Your task to perform on an android device: open app "Booking.com: Hotels and more" Image 0: 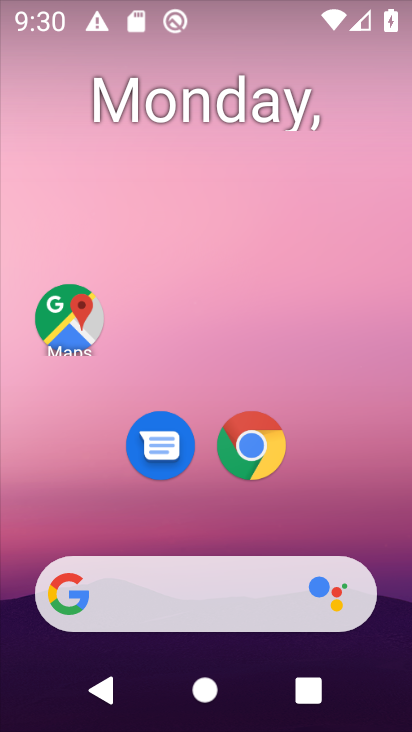
Step 0: drag from (398, 605) to (272, 67)
Your task to perform on an android device: open app "Booking.com: Hotels and more" Image 1: 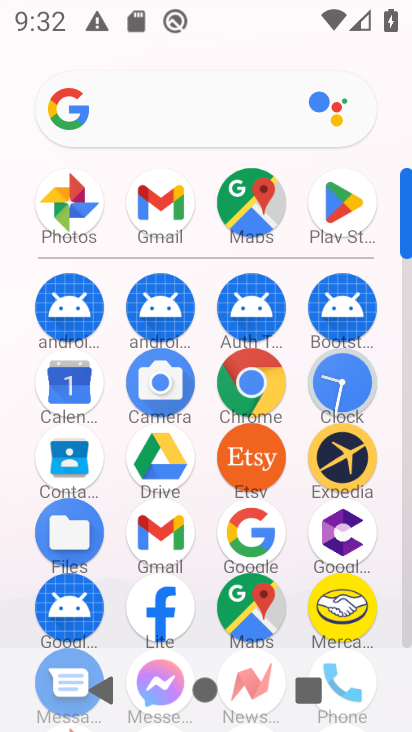
Step 1: click (314, 215)
Your task to perform on an android device: open app "Booking.com: Hotels and more" Image 2: 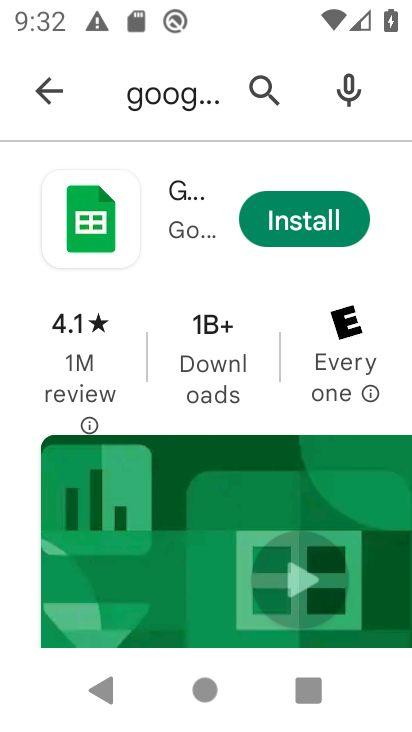
Step 2: press back button
Your task to perform on an android device: open app "Booking.com: Hotels and more" Image 3: 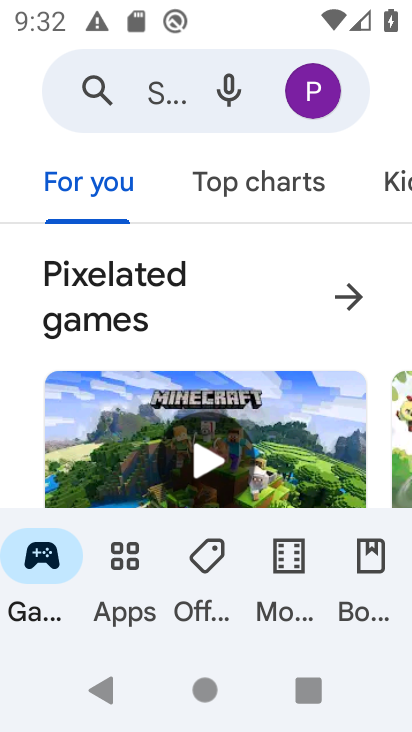
Step 3: click (145, 99)
Your task to perform on an android device: open app "Booking.com: Hotels and more" Image 4: 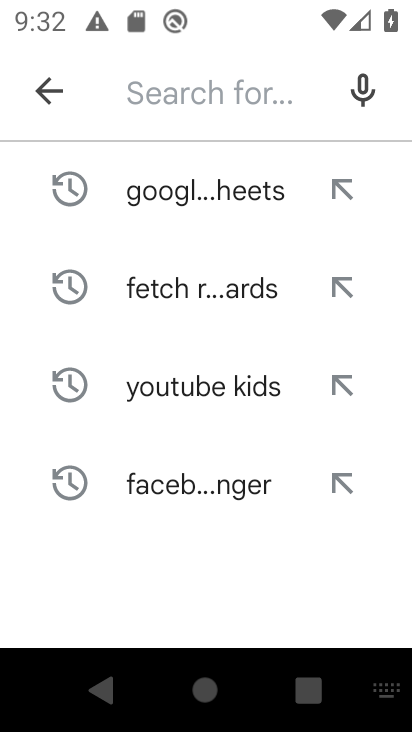
Step 4: type "Booking.com: Hotels and more"
Your task to perform on an android device: open app "Booking.com: Hotels and more" Image 5: 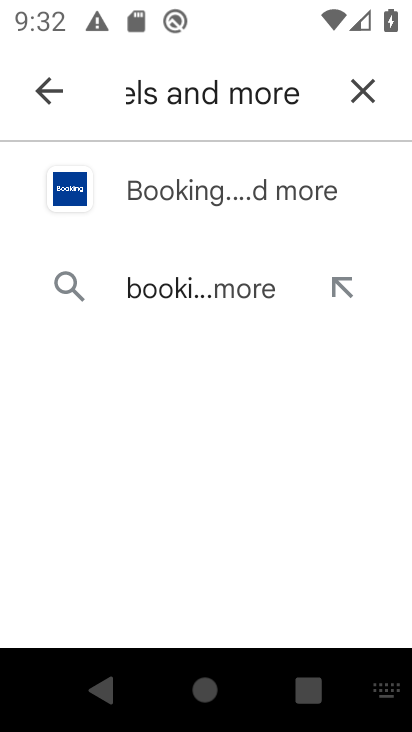
Step 5: click (270, 218)
Your task to perform on an android device: open app "Booking.com: Hotels and more" Image 6: 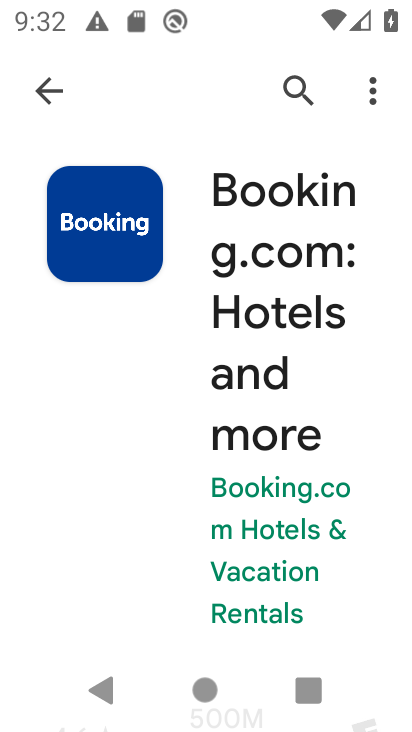
Step 6: task complete